Your task to perform on an android device: toggle sleep mode Image 0: 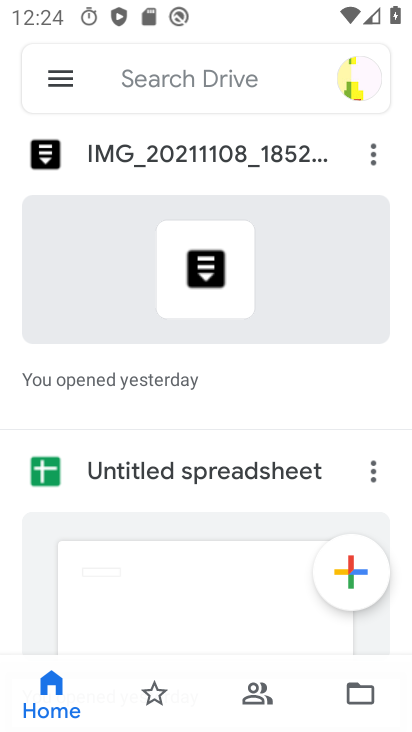
Step 0: press home button
Your task to perform on an android device: toggle sleep mode Image 1: 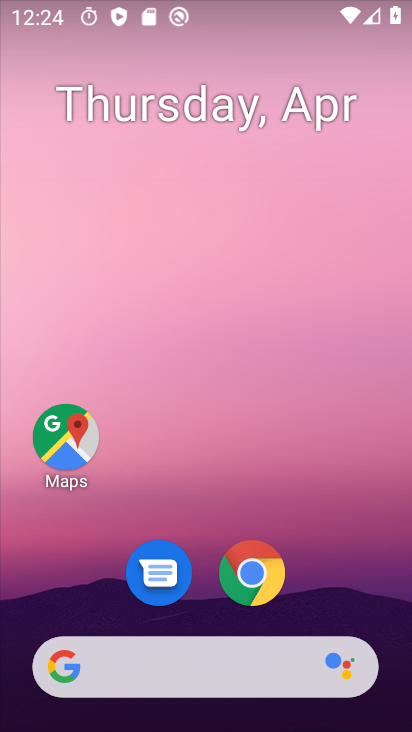
Step 1: drag from (391, 612) to (375, 352)
Your task to perform on an android device: toggle sleep mode Image 2: 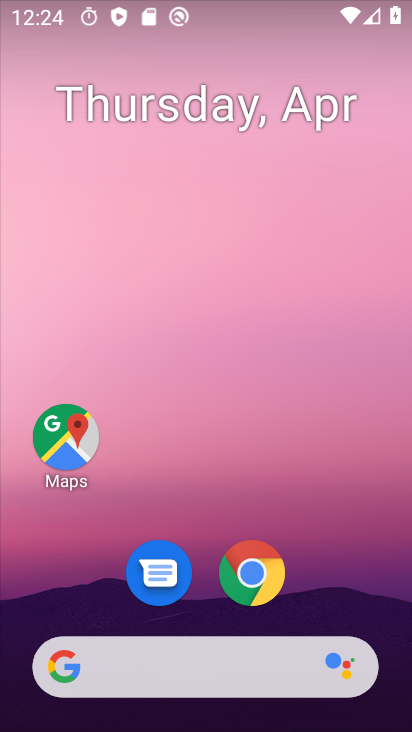
Step 2: drag from (377, 627) to (342, 211)
Your task to perform on an android device: toggle sleep mode Image 3: 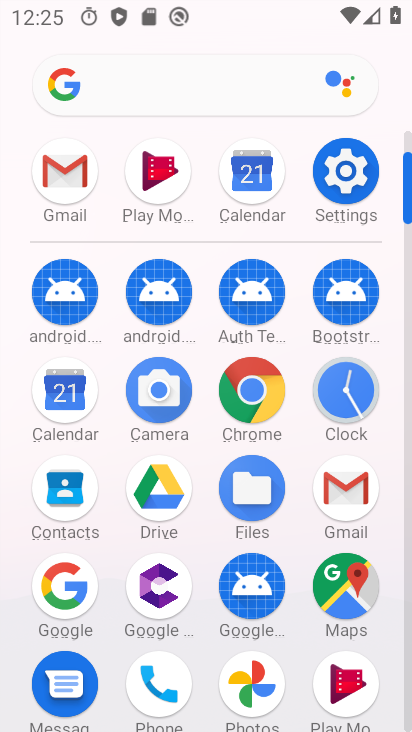
Step 3: click (354, 183)
Your task to perform on an android device: toggle sleep mode Image 4: 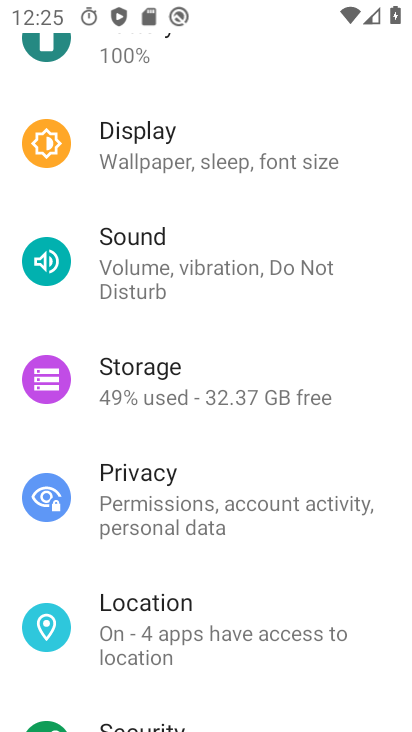
Step 4: click (153, 151)
Your task to perform on an android device: toggle sleep mode Image 5: 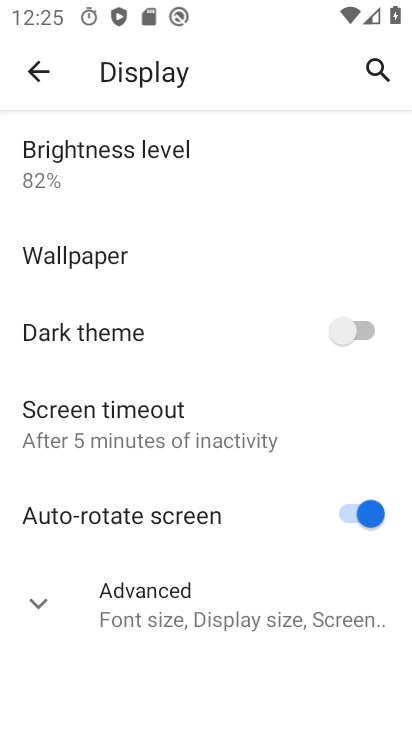
Step 5: click (119, 423)
Your task to perform on an android device: toggle sleep mode Image 6: 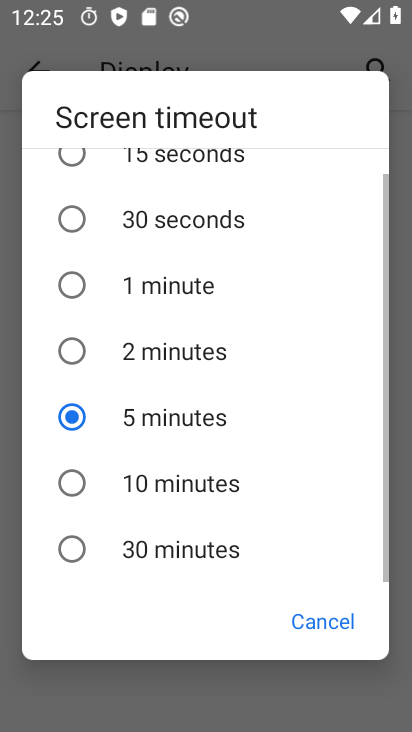
Step 6: click (74, 350)
Your task to perform on an android device: toggle sleep mode Image 7: 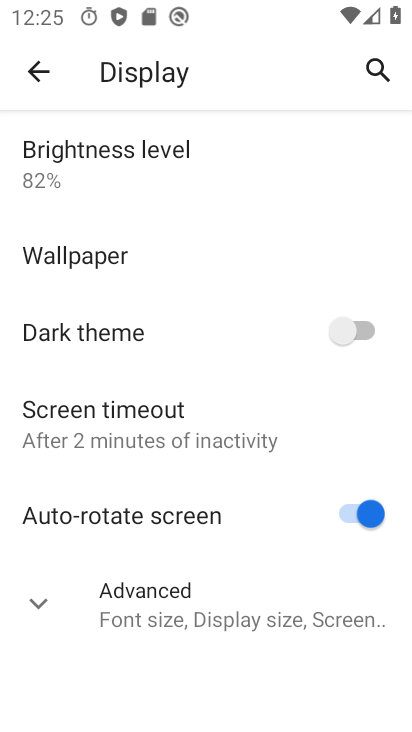
Step 7: task complete